Your task to perform on an android device: turn on wifi Image 0: 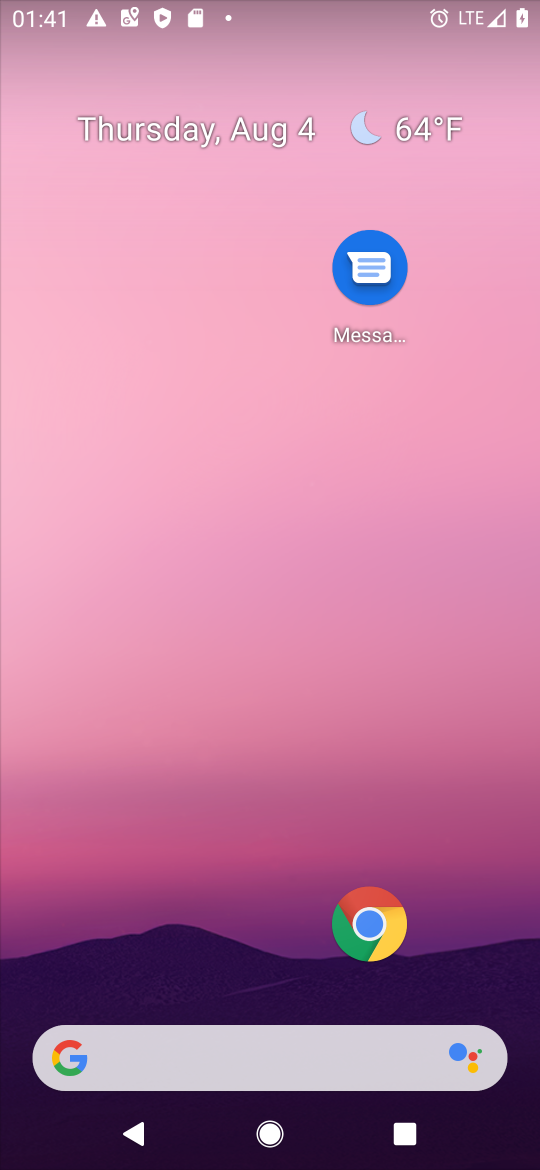
Step 0: drag from (40, 1146) to (174, 615)
Your task to perform on an android device: turn on wifi Image 1: 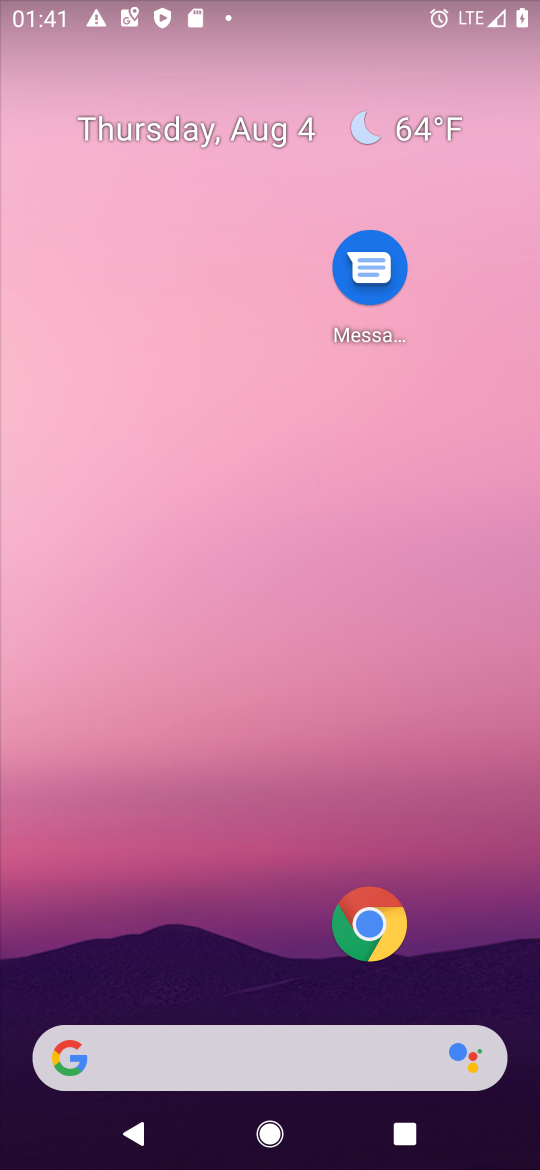
Step 1: drag from (91, 1083) to (236, 22)
Your task to perform on an android device: turn on wifi Image 2: 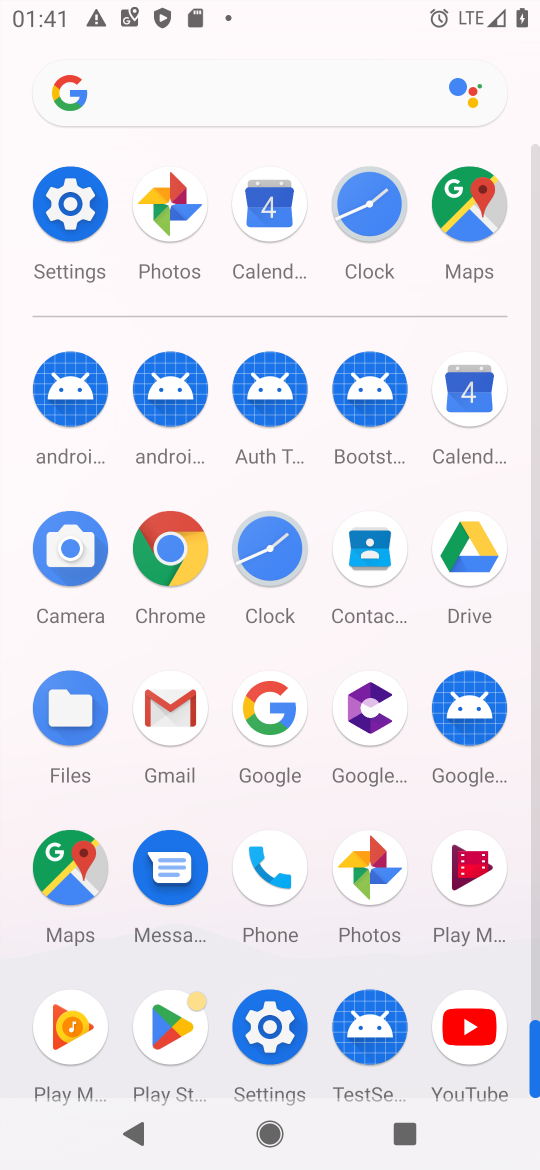
Step 2: click (267, 1033)
Your task to perform on an android device: turn on wifi Image 3: 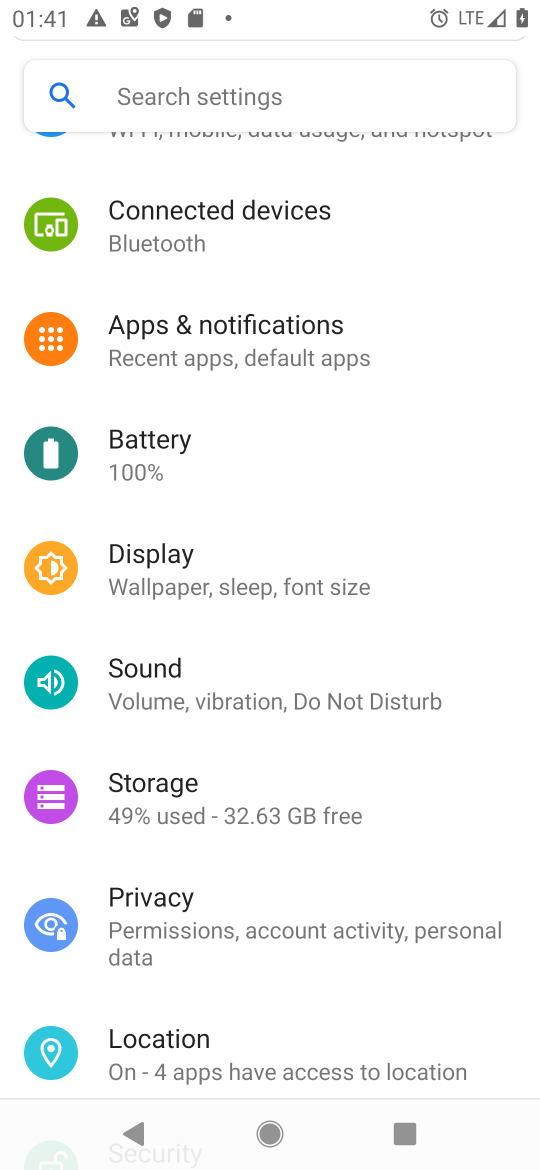
Step 3: drag from (266, 233) to (267, 785)
Your task to perform on an android device: turn on wifi Image 4: 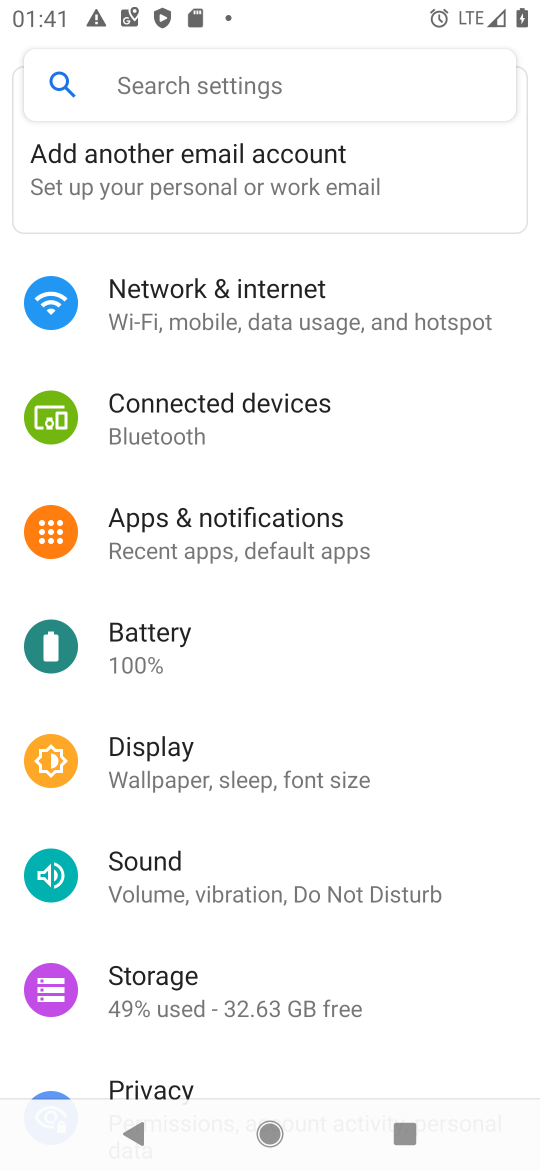
Step 4: click (188, 322)
Your task to perform on an android device: turn on wifi Image 5: 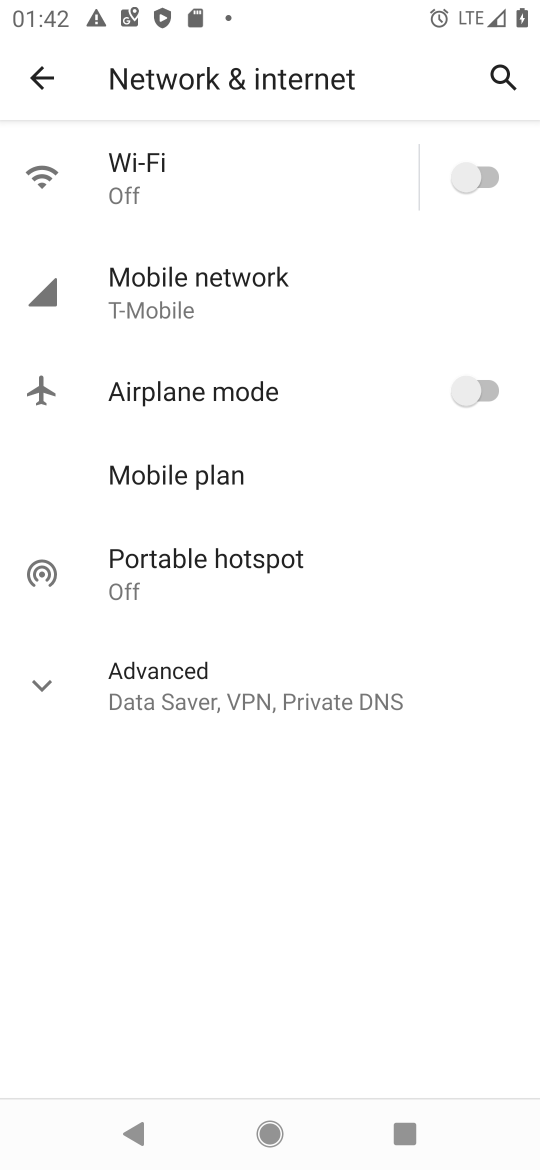
Step 5: click (482, 160)
Your task to perform on an android device: turn on wifi Image 6: 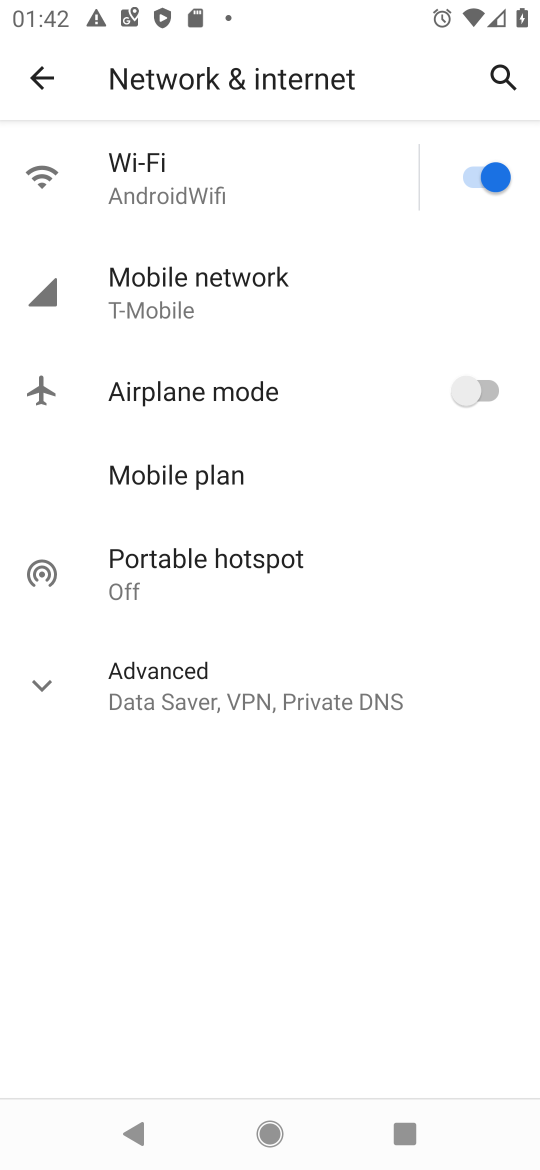
Step 6: task complete